Your task to perform on an android device: turn off location history Image 0: 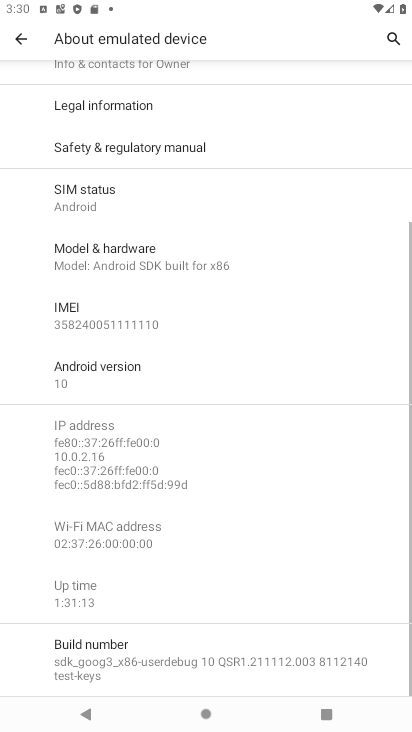
Step 0: press home button
Your task to perform on an android device: turn off location history Image 1: 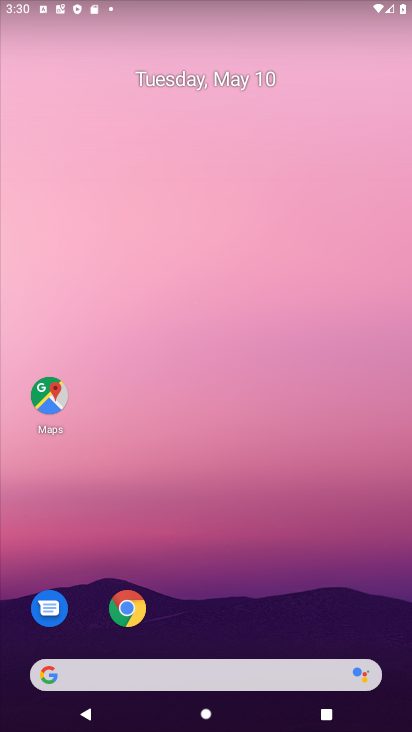
Step 1: drag from (388, 625) to (374, 584)
Your task to perform on an android device: turn off location history Image 2: 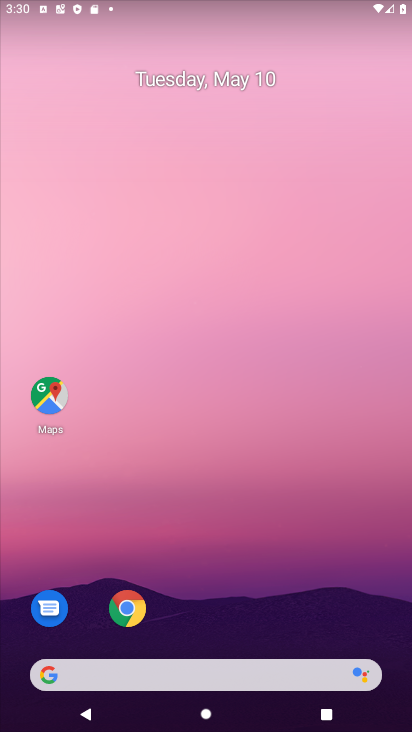
Step 2: click (51, 397)
Your task to perform on an android device: turn off location history Image 3: 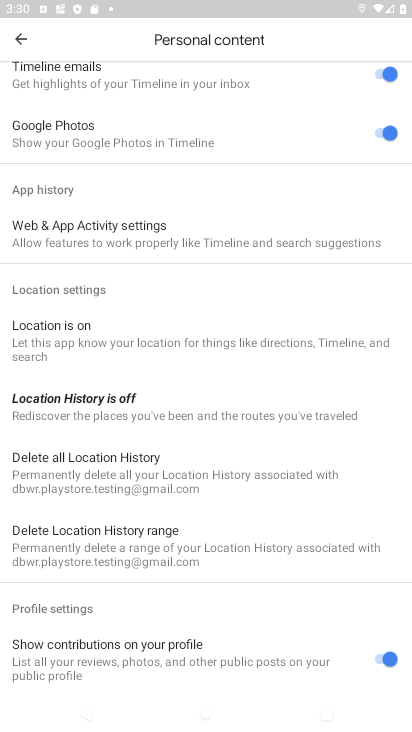
Step 3: task complete